Your task to perform on an android device: move a message to another label in the gmail app Image 0: 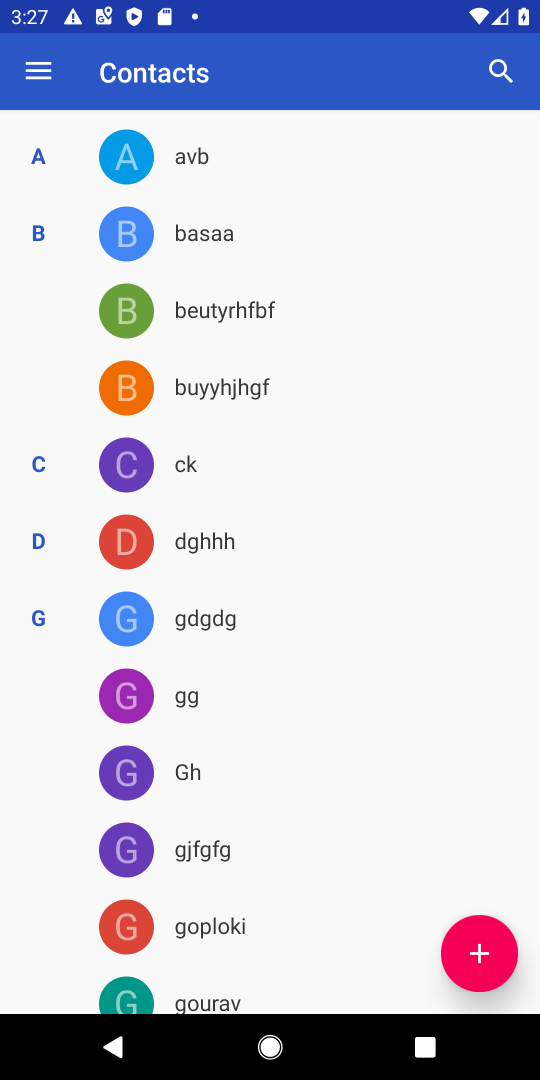
Step 0: press back button
Your task to perform on an android device: move a message to another label in the gmail app Image 1: 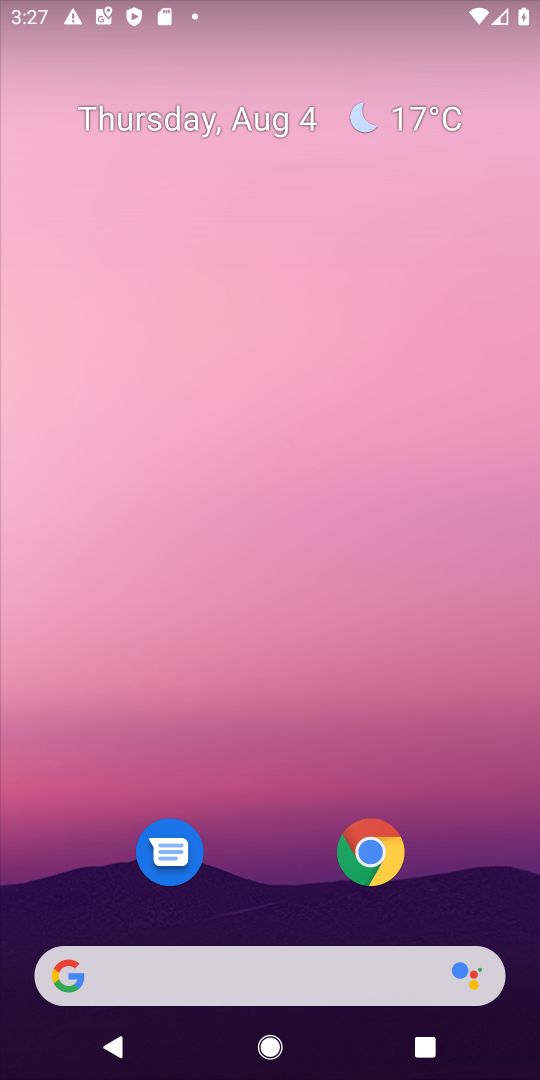
Step 1: drag from (311, 831) to (348, 114)
Your task to perform on an android device: move a message to another label in the gmail app Image 2: 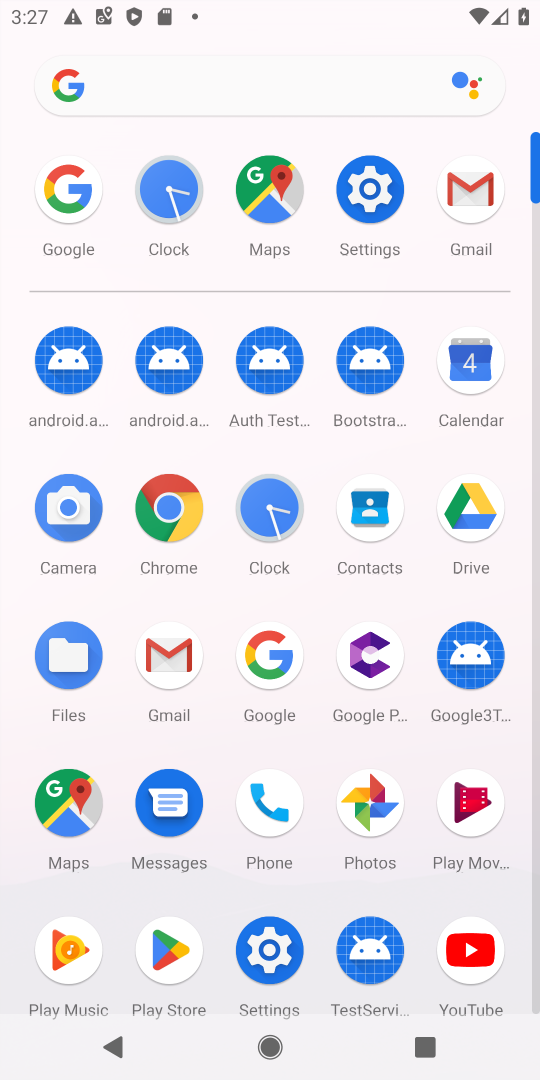
Step 2: click (465, 203)
Your task to perform on an android device: move a message to another label in the gmail app Image 3: 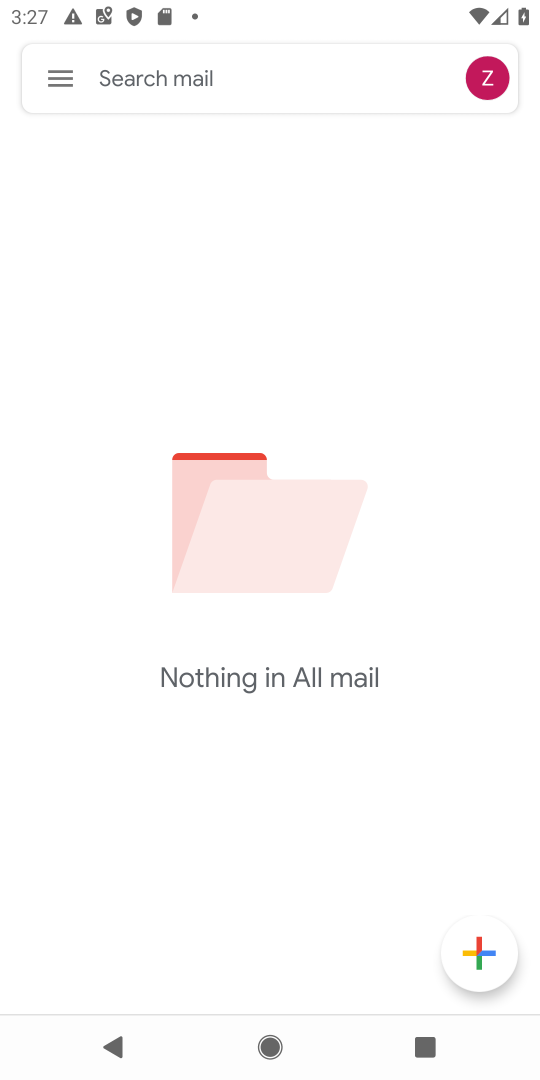
Step 3: task complete